Your task to perform on an android device: Do I have any events this weekend? Image 0: 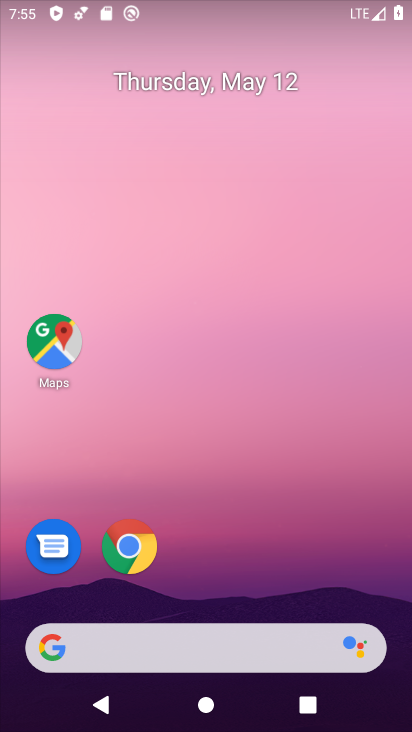
Step 0: drag from (226, 564) to (298, 107)
Your task to perform on an android device: Do I have any events this weekend? Image 1: 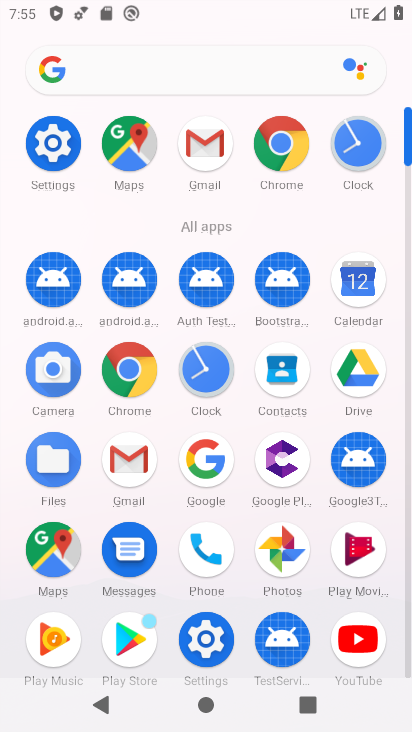
Step 1: click (358, 278)
Your task to perform on an android device: Do I have any events this weekend? Image 2: 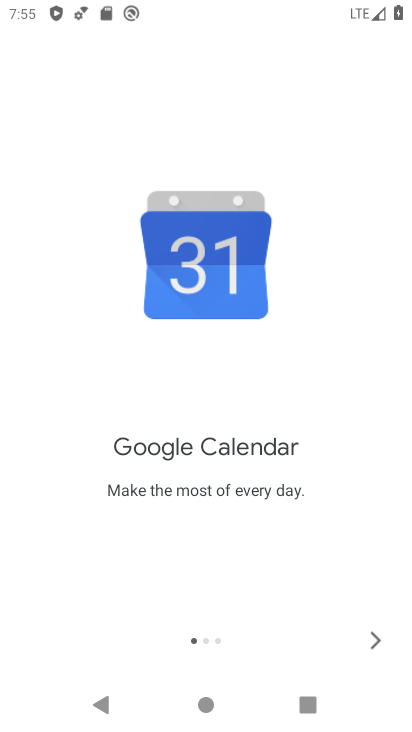
Step 2: click (390, 635)
Your task to perform on an android device: Do I have any events this weekend? Image 3: 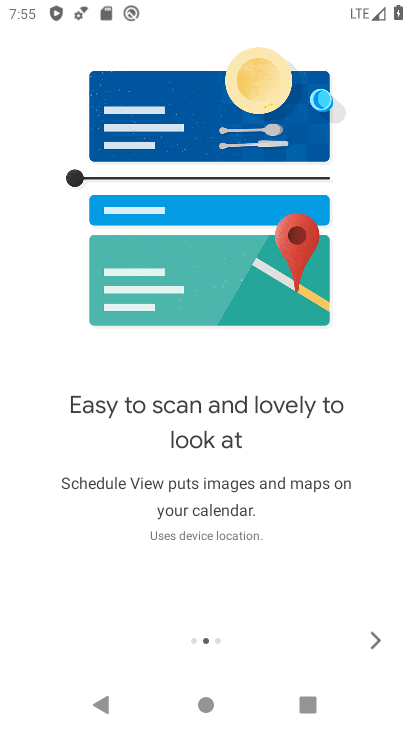
Step 3: click (376, 635)
Your task to perform on an android device: Do I have any events this weekend? Image 4: 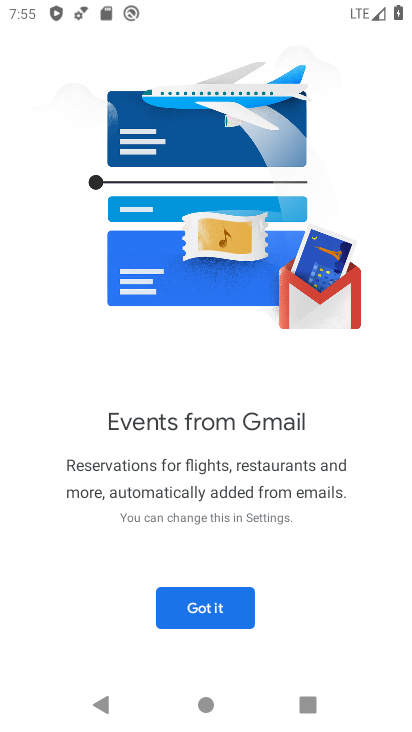
Step 4: click (175, 608)
Your task to perform on an android device: Do I have any events this weekend? Image 5: 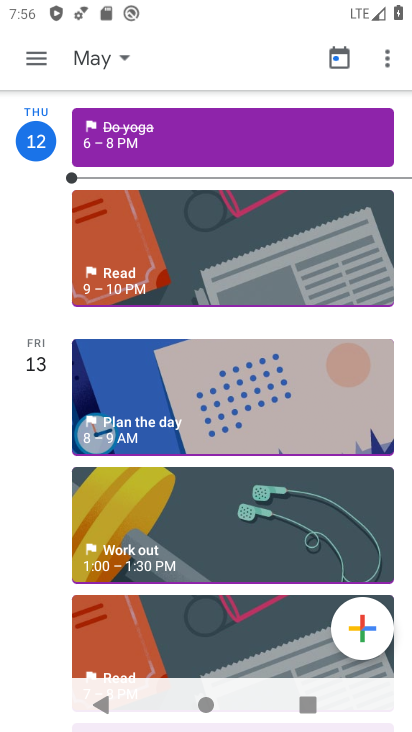
Step 5: drag from (201, 574) to (290, 90)
Your task to perform on an android device: Do I have any events this weekend? Image 6: 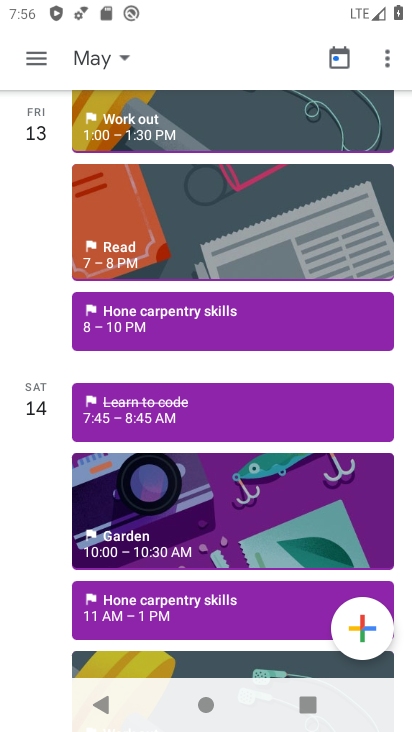
Step 6: drag from (213, 637) to (289, 106)
Your task to perform on an android device: Do I have any events this weekend? Image 7: 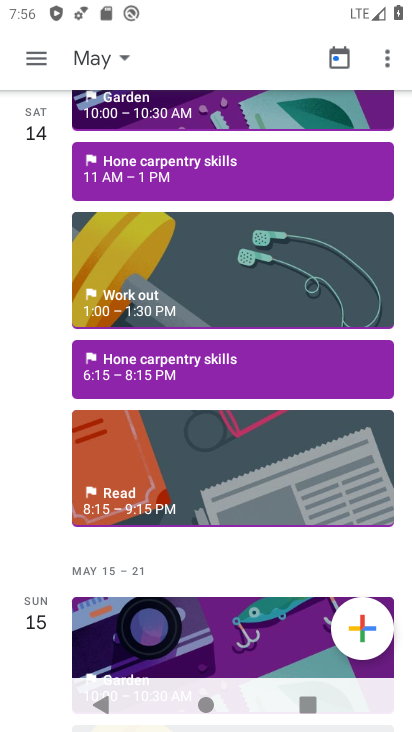
Step 7: drag from (194, 613) to (277, 140)
Your task to perform on an android device: Do I have any events this weekend? Image 8: 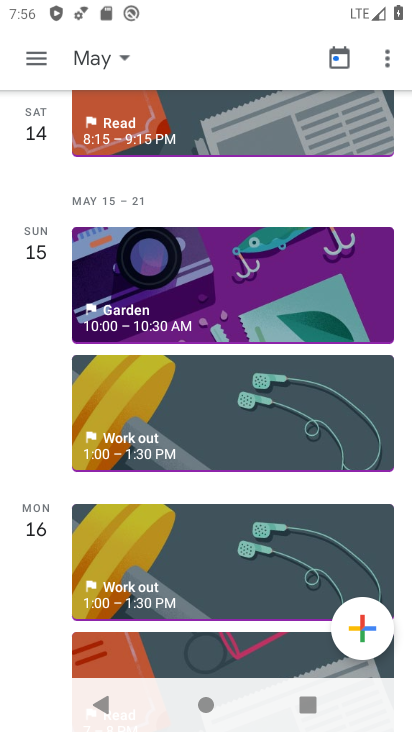
Step 8: click (147, 398)
Your task to perform on an android device: Do I have any events this weekend? Image 9: 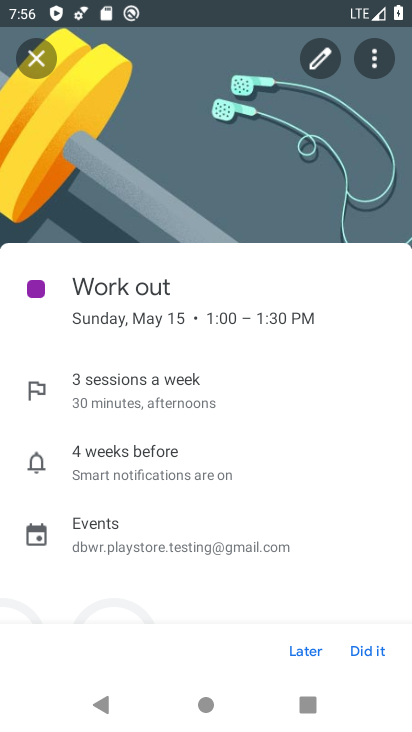
Step 9: task complete